Your task to perform on an android device: see tabs open on other devices in the chrome app Image 0: 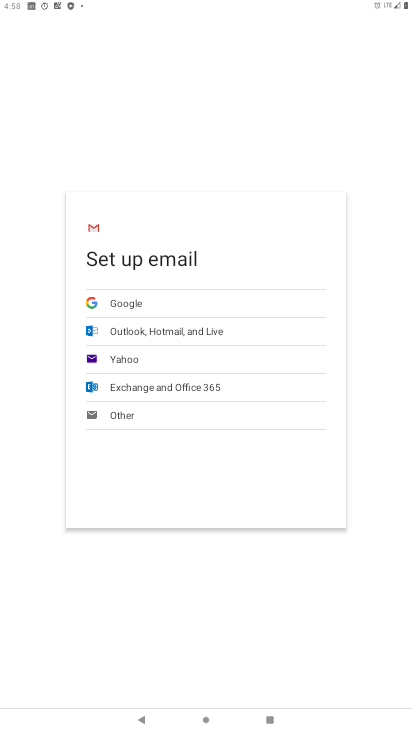
Step 0: press home button
Your task to perform on an android device: see tabs open on other devices in the chrome app Image 1: 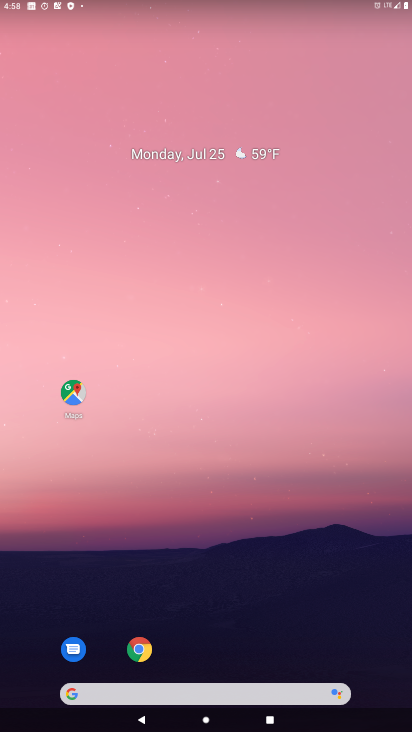
Step 1: drag from (278, 647) to (176, 75)
Your task to perform on an android device: see tabs open on other devices in the chrome app Image 2: 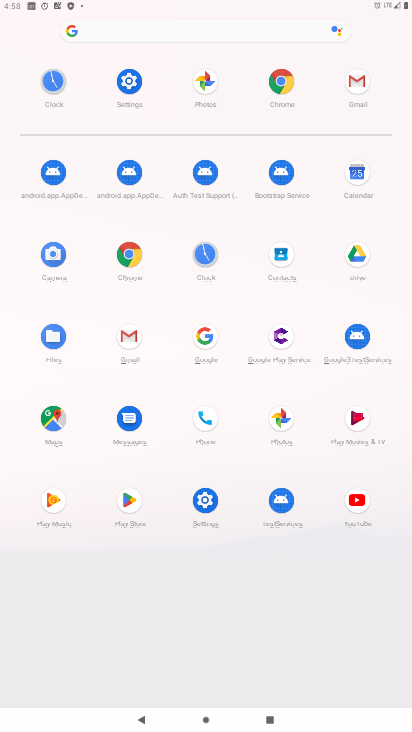
Step 2: click (290, 87)
Your task to perform on an android device: see tabs open on other devices in the chrome app Image 3: 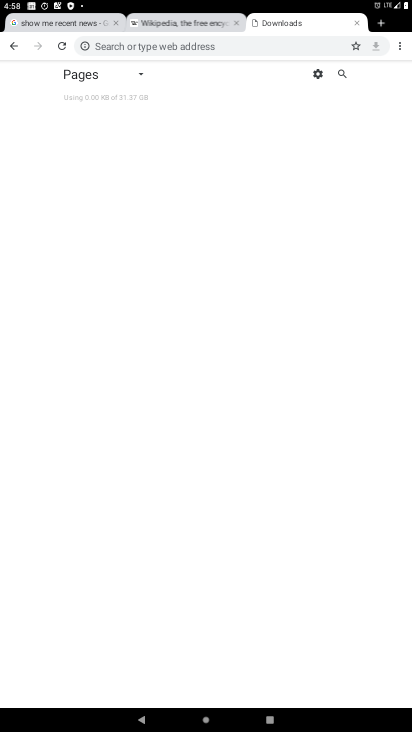
Step 3: click (409, 44)
Your task to perform on an android device: see tabs open on other devices in the chrome app Image 4: 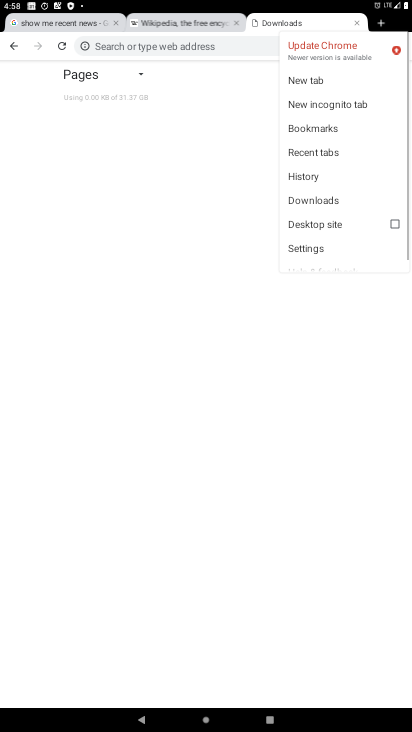
Step 4: click (340, 148)
Your task to perform on an android device: see tabs open on other devices in the chrome app Image 5: 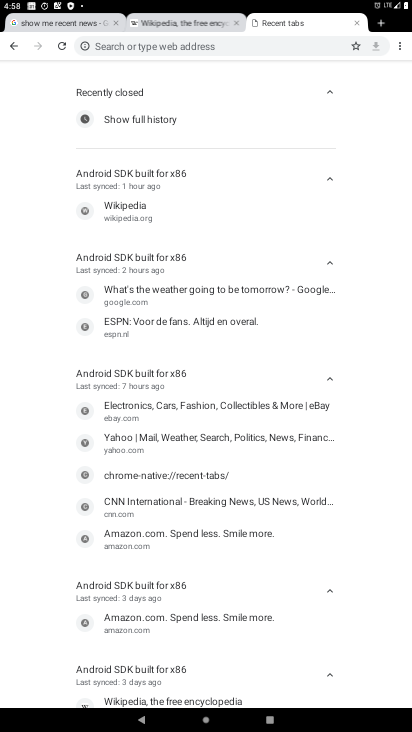
Step 5: task complete